Your task to perform on an android device: Add macbook pro to the cart on costco, then select checkout. Image 0: 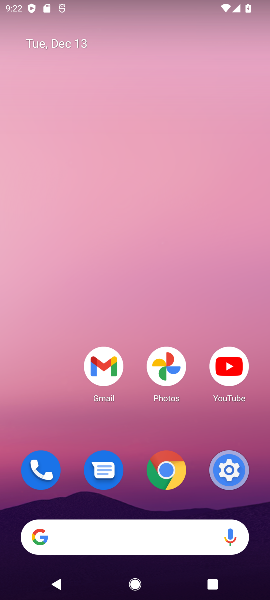
Step 0: press home button
Your task to perform on an android device: Add macbook pro to the cart on costco, then select checkout. Image 1: 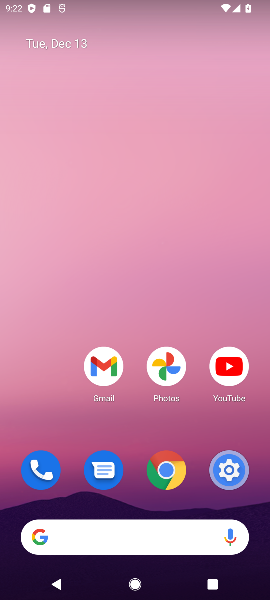
Step 1: click (55, 539)
Your task to perform on an android device: Add macbook pro to the cart on costco, then select checkout. Image 2: 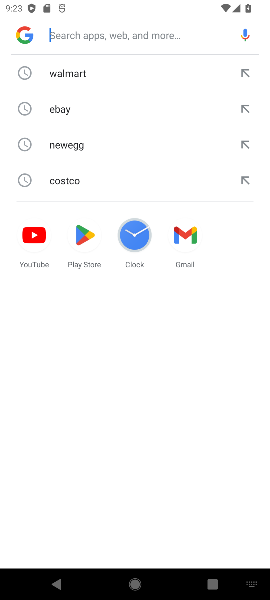
Step 2: type "costco"
Your task to perform on an android device: Add macbook pro to the cart on costco, then select checkout. Image 3: 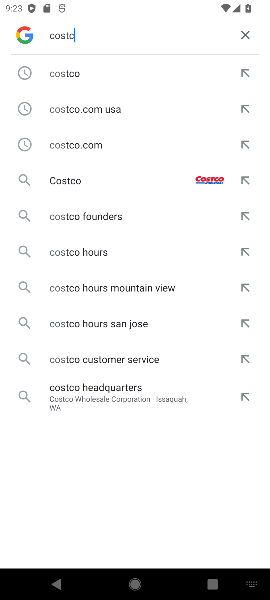
Step 3: press enter
Your task to perform on an android device: Add macbook pro to the cart on costco, then select checkout. Image 4: 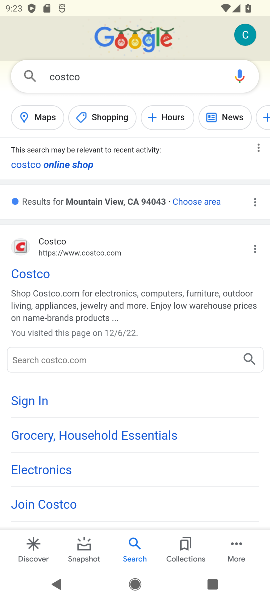
Step 4: click (25, 274)
Your task to perform on an android device: Add macbook pro to the cart on costco, then select checkout. Image 5: 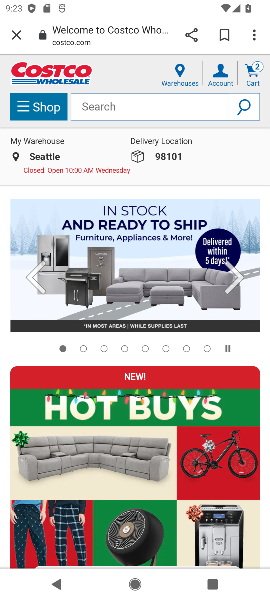
Step 5: click (113, 107)
Your task to perform on an android device: Add macbook pro to the cart on costco, then select checkout. Image 6: 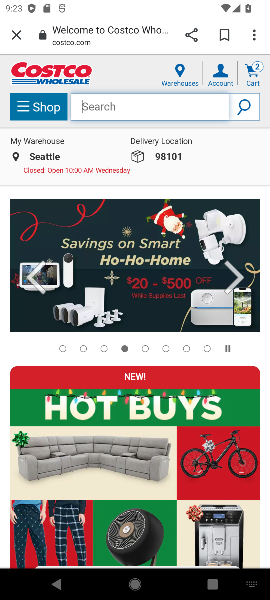
Step 6: type "macbook pro"
Your task to perform on an android device: Add macbook pro to the cart on costco, then select checkout. Image 7: 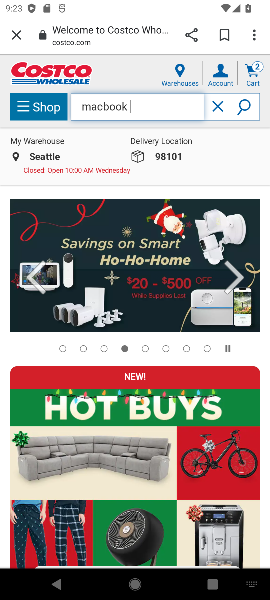
Step 7: press enter
Your task to perform on an android device: Add macbook pro to the cart on costco, then select checkout. Image 8: 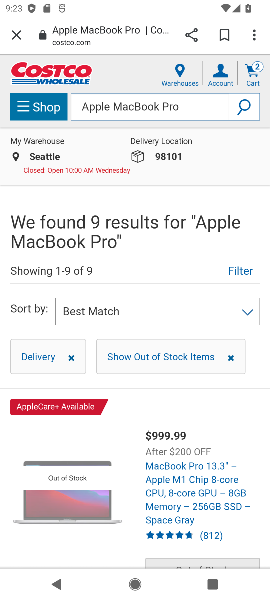
Step 8: drag from (181, 485) to (192, 221)
Your task to perform on an android device: Add macbook pro to the cart on costco, then select checkout. Image 9: 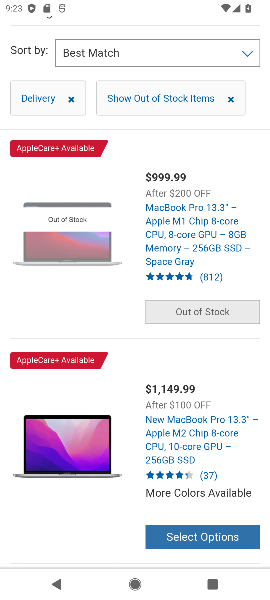
Step 9: click (178, 223)
Your task to perform on an android device: Add macbook pro to the cart on costco, then select checkout. Image 10: 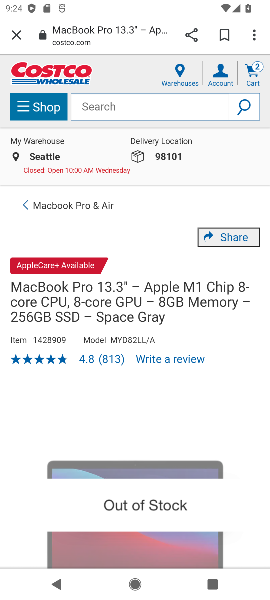
Step 10: task complete